Your task to perform on an android device: create a new album in the google photos Image 0: 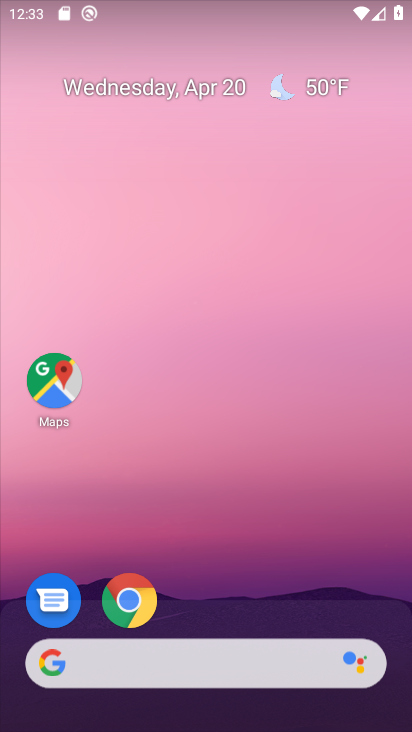
Step 0: drag from (226, 667) to (309, 98)
Your task to perform on an android device: create a new album in the google photos Image 1: 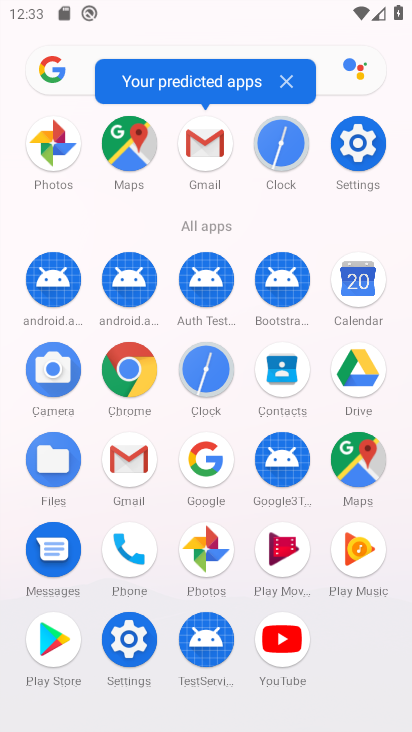
Step 1: click (206, 554)
Your task to perform on an android device: create a new album in the google photos Image 2: 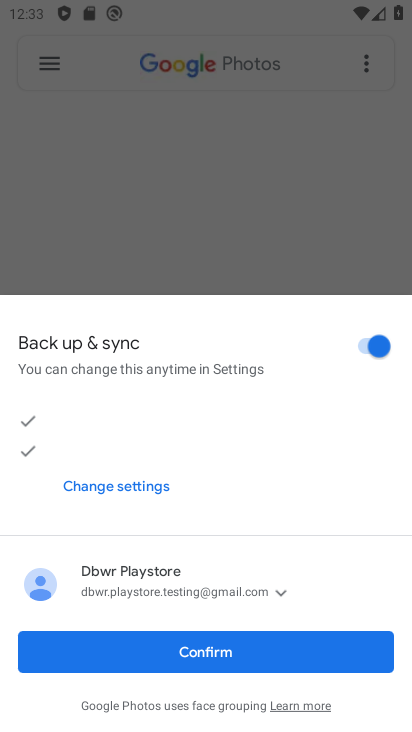
Step 2: click (200, 654)
Your task to perform on an android device: create a new album in the google photos Image 3: 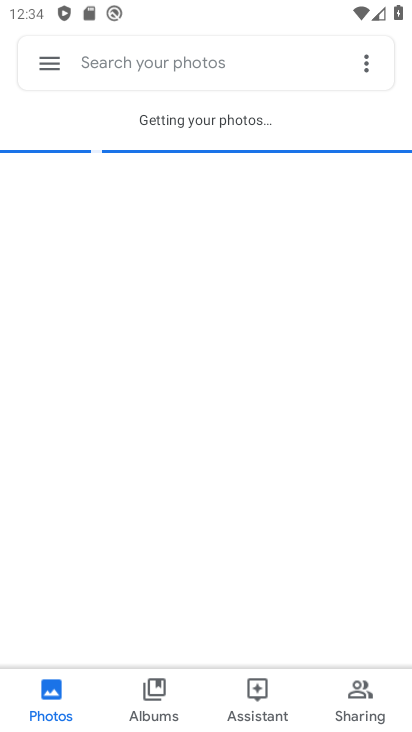
Step 3: click (159, 693)
Your task to perform on an android device: create a new album in the google photos Image 4: 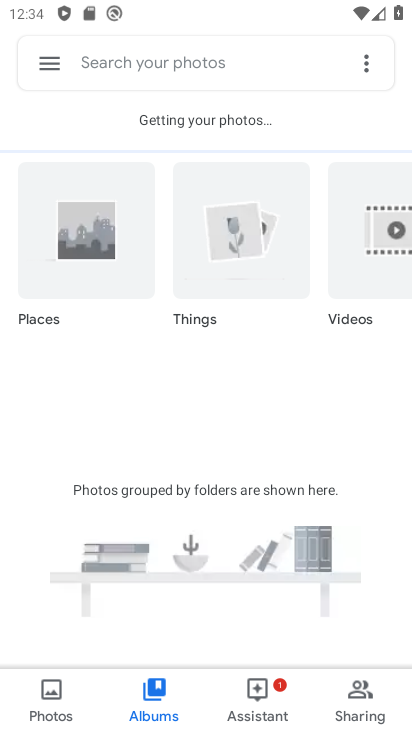
Step 4: drag from (195, 598) to (273, 368)
Your task to perform on an android device: create a new album in the google photos Image 5: 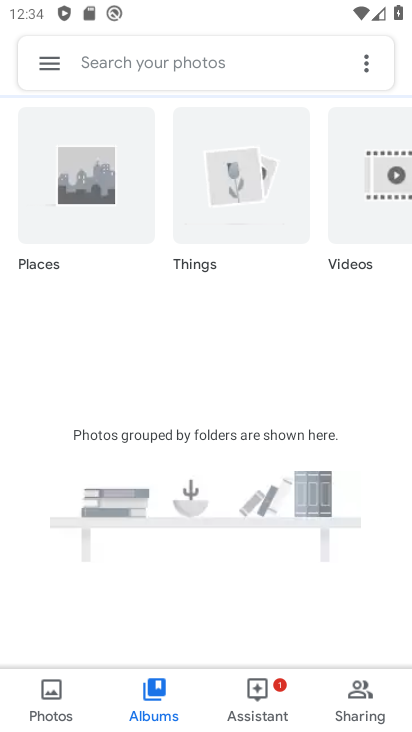
Step 5: drag from (245, 516) to (324, 324)
Your task to perform on an android device: create a new album in the google photos Image 6: 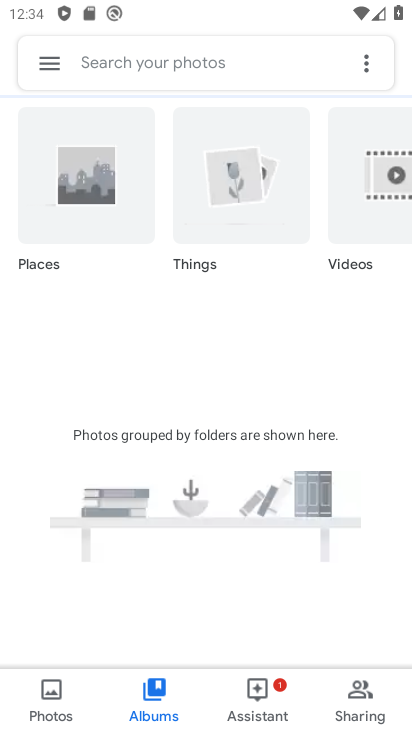
Step 6: drag from (314, 258) to (280, 606)
Your task to perform on an android device: create a new album in the google photos Image 7: 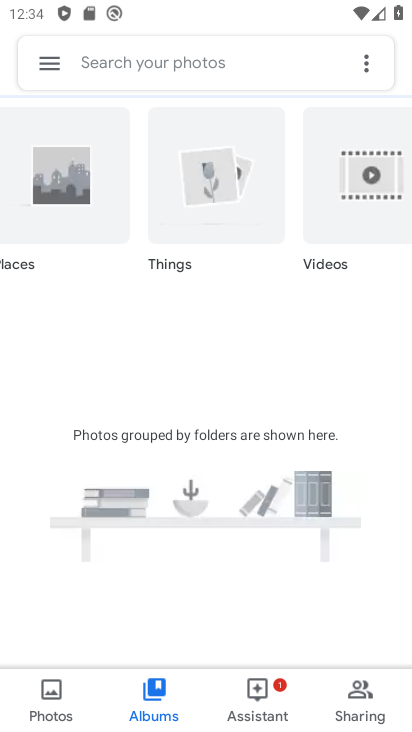
Step 7: drag from (354, 222) to (112, 227)
Your task to perform on an android device: create a new album in the google photos Image 8: 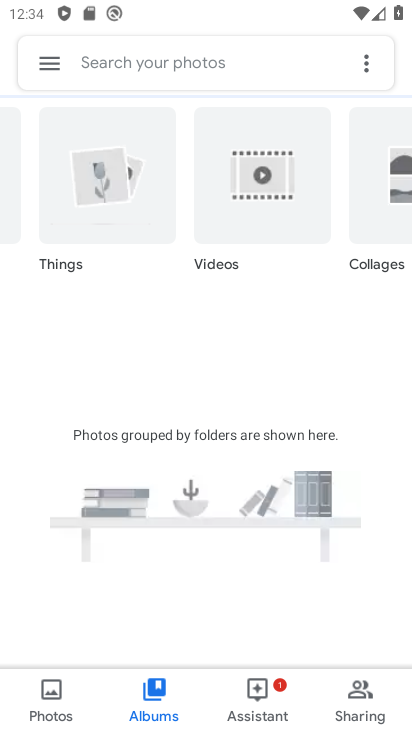
Step 8: drag from (367, 204) to (84, 206)
Your task to perform on an android device: create a new album in the google photos Image 9: 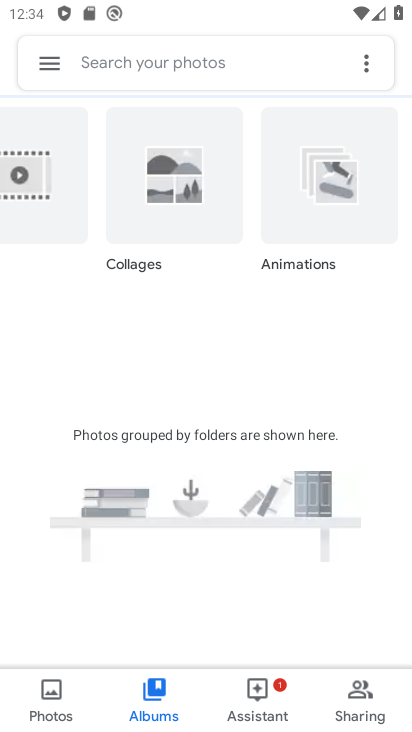
Step 9: drag from (325, 217) to (99, 228)
Your task to perform on an android device: create a new album in the google photos Image 10: 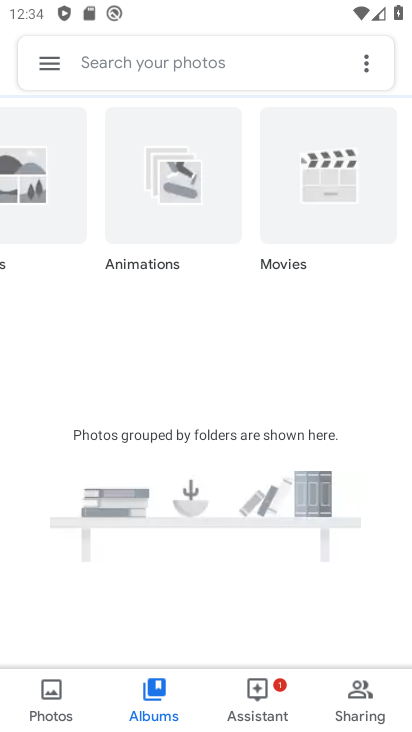
Step 10: drag from (324, 218) to (72, 264)
Your task to perform on an android device: create a new album in the google photos Image 11: 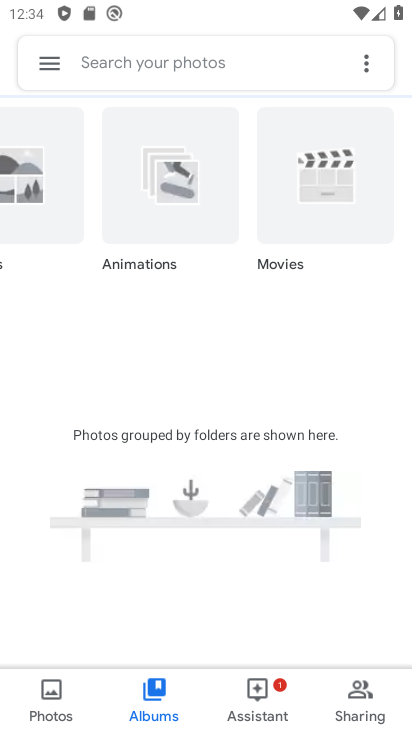
Step 11: click (156, 687)
Your task to perform on an android device: create a new album in the google photos Image 12: 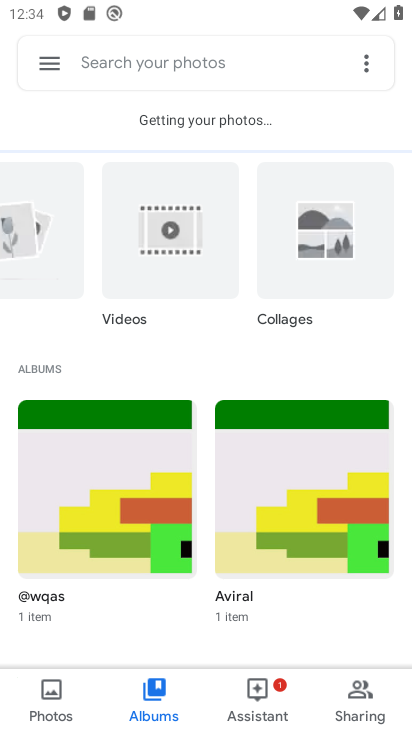
Step 12: task complete